Your task to perform on an android device: turn off location history Image 0: 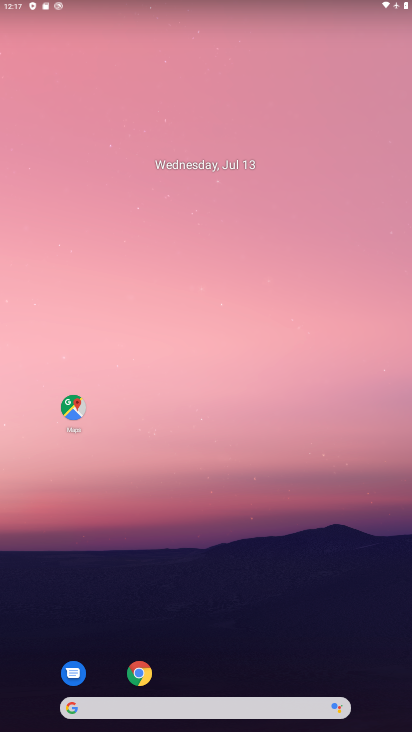
Step 0: drag from (290, 660) to (262, 63)
Your task to perform on an android device: turn off location history Image 1: 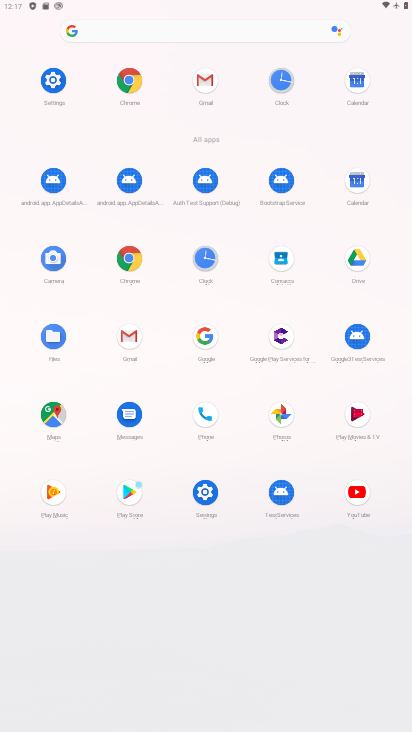
Step 1: click (64, 104)
Your task to perform on an android device: turn off location history Image 2: 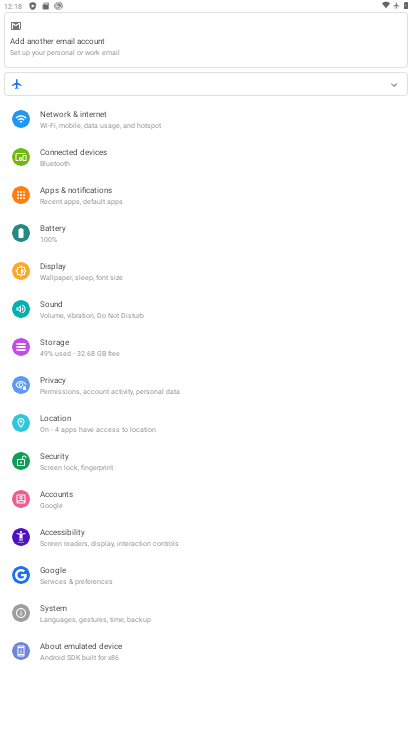
Step 2: click (88, 419)
Your task to perform on an android device: turn off location history Image 3: 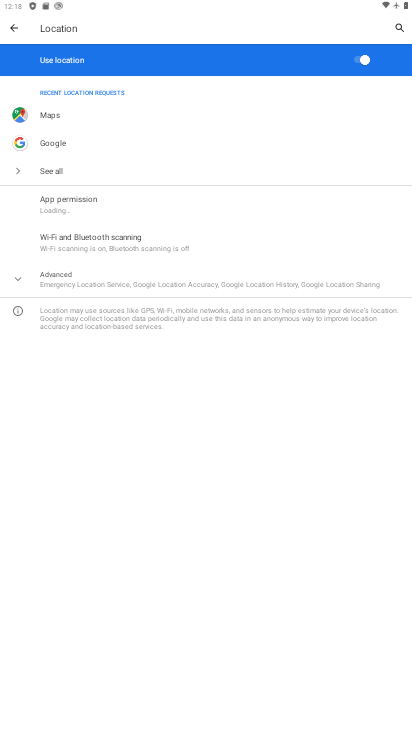
Step 3: click (155, 276)
Your task to perform on an android device: turn off location history Image 4: 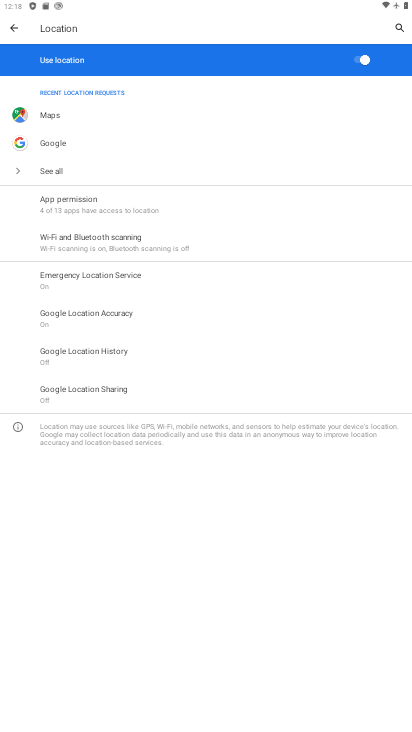
Step 4: click (131, 318)
Your task to perform on an android device: turn off location history Image 5: 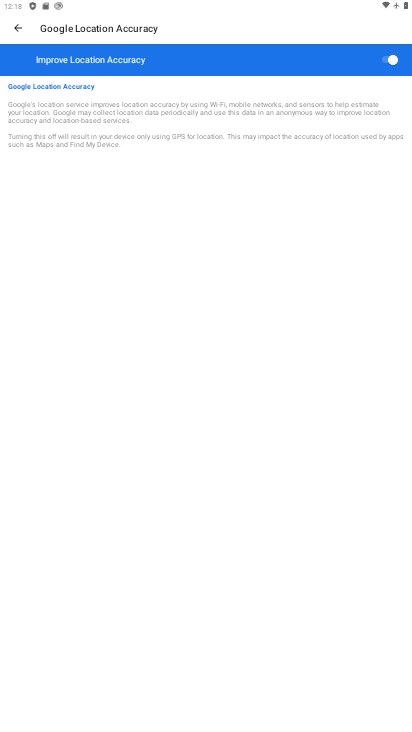
Step 5: click (373, 61)
Your task to perform on an android device: turn off location history Image 6: 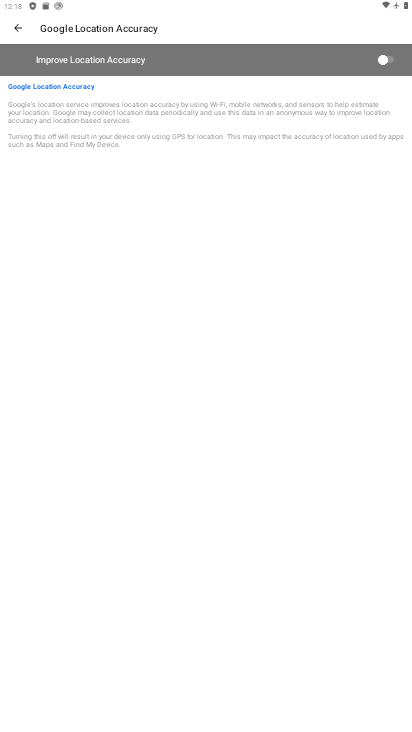
Step 6: task complete